Your task to perform on an android device: Open Chrome and go to the settings page Image 0: 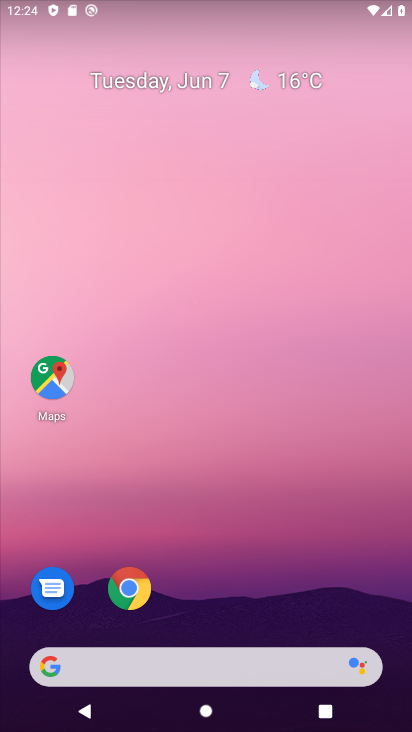
Step 0: drag from (281, 592) to (273, 0)
Your task to perform on an android device: Open Chrome and go to the settings page Image 1: 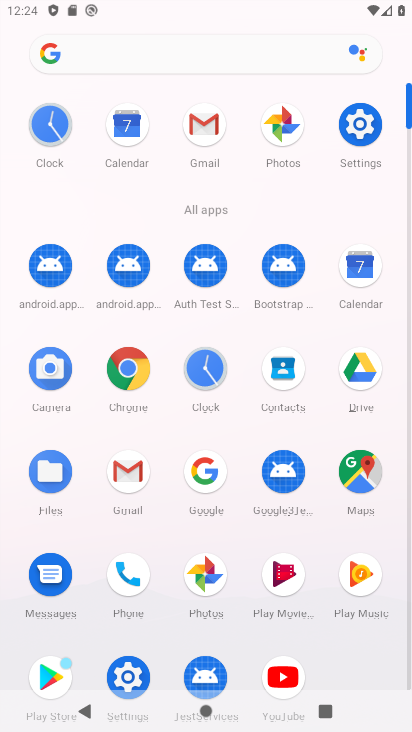
Step 1: click (118, 396)
Your task to perform on an android device: Open Chrome and go to the settings page Image 2: 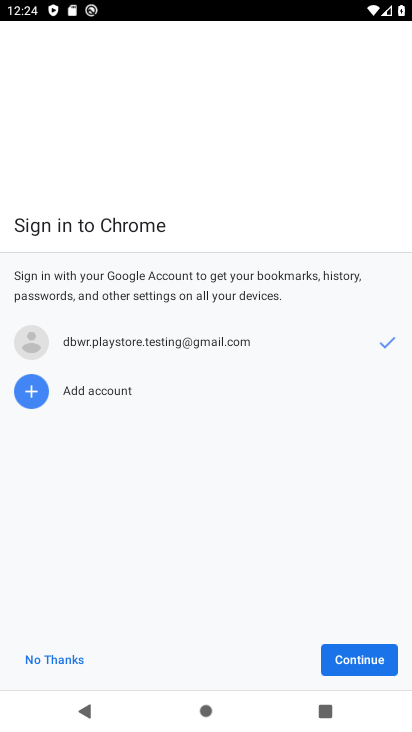
Step 2: click (358, 669)
Your task to perform on an android device: Open Chrome and go to the settings page Image 3: 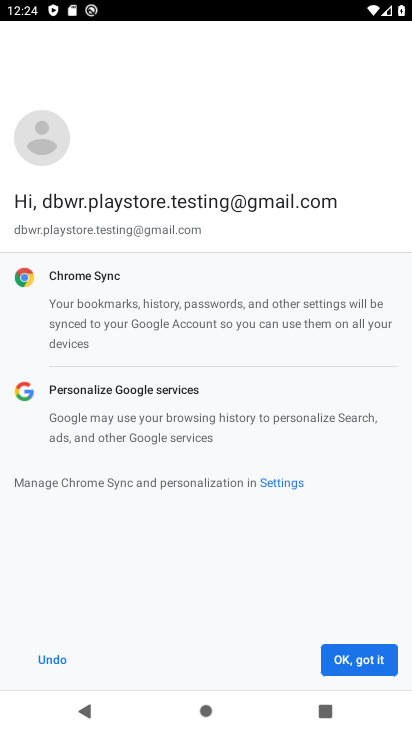
Step 3: click (358, 669)
Your task to perform on an android device: Open Chrome and go to the settings page Image 4: 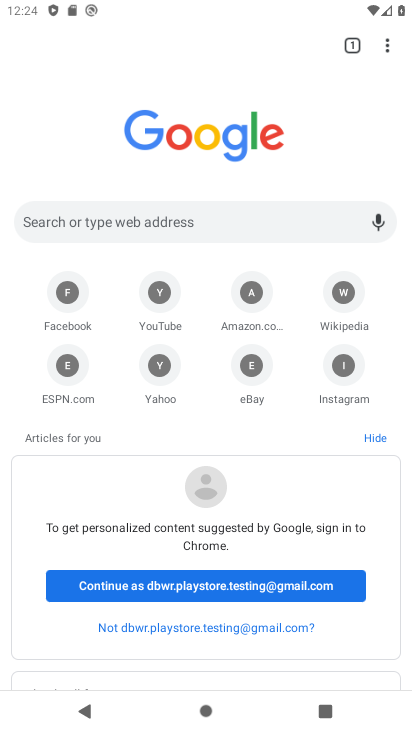
Step 4: click (388, 57)
Your task to perform on an android device: Open Chrome and go to the settings page Image 5: 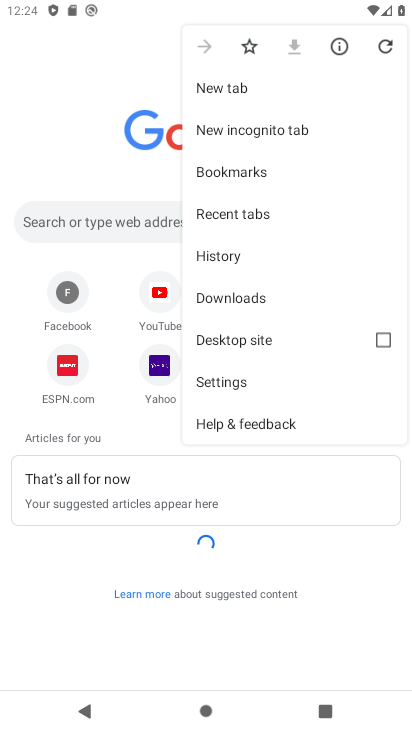
Step 5: click (257, 380)
Your task to perform on an android device: Open Chrome and go to the settings page Image 6: 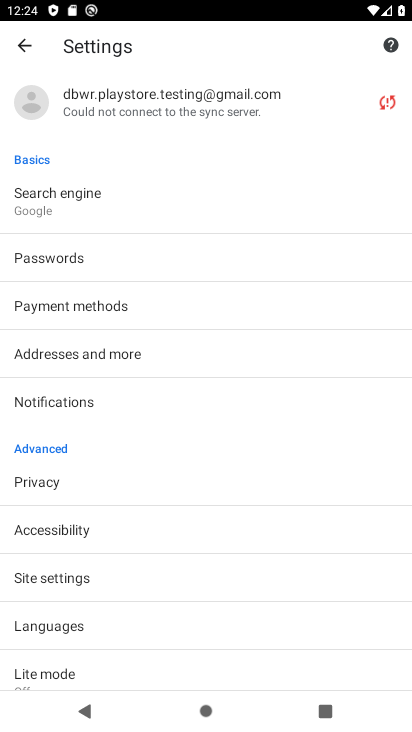
Step 6: task complete